Your task to perform on an android device: read, delete, or share a saved page in the chrome app Image 0: 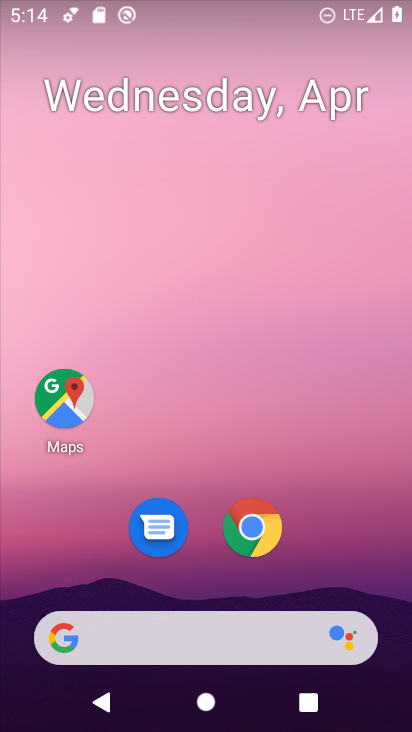
Step 0: click (255, 528)
Your task to perform on an android device: read, delete, or share a saved page in the chrome app Image 1: 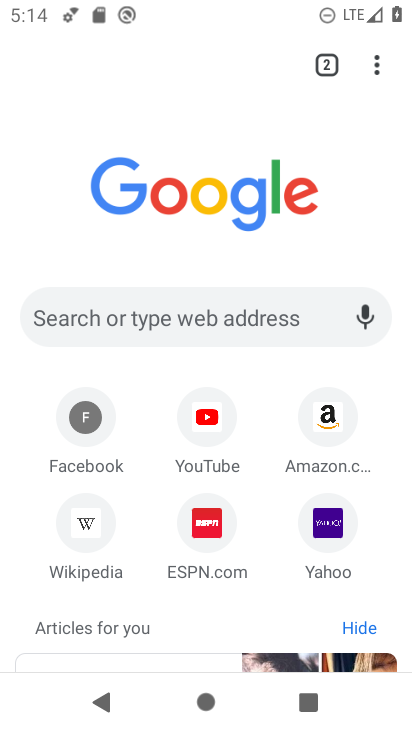
Step 1: click (376, 61)
Your task to perform on an android device: read, delete, or share a saved page in the chrome app Image 2: 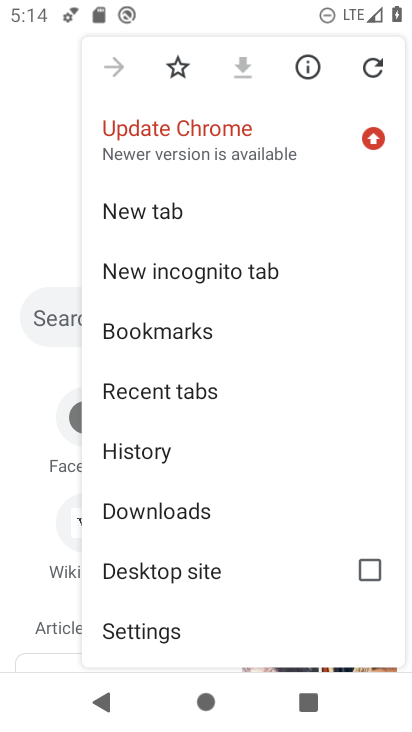
Step 2: click (138, 512)
Your task to perform on an android device: read, delete, or share a saved page in the chrome app Image 3: 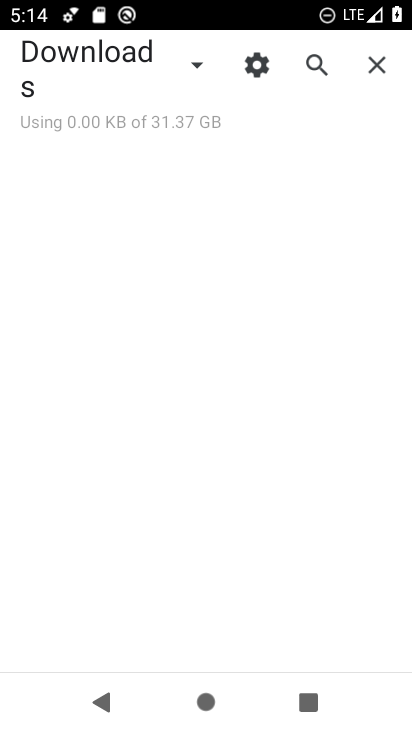
Step 3: click (197, 69)
Your task to perform on an android device: read, delete, or share a saved page in the chrome app Image 4: 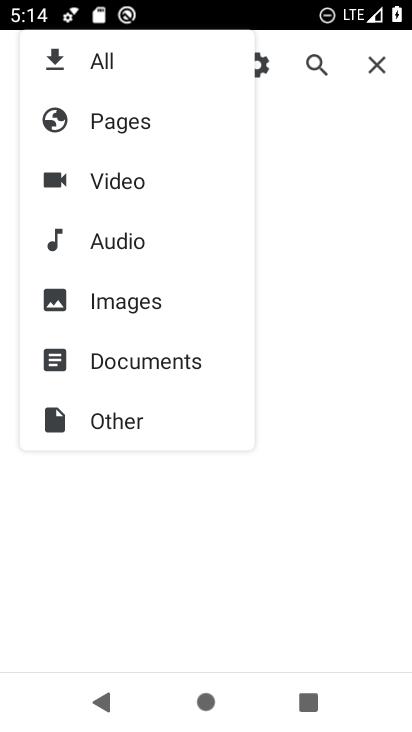
Step 4: click (126, 129)
Your task to perform on an android device: read, delete, or share a saved page in the chrome app Image 5: 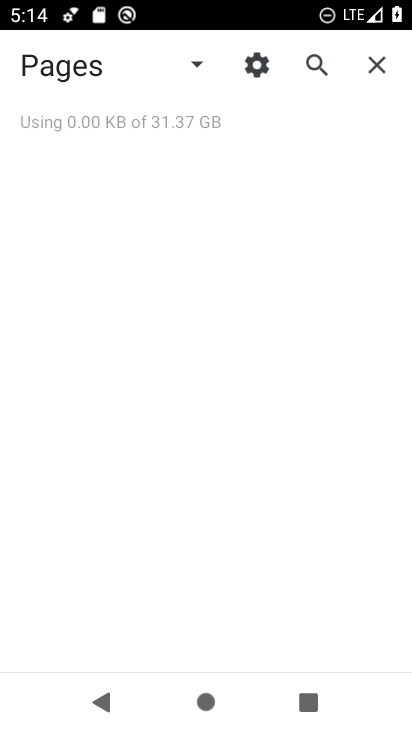
Step 5: task complete